Your task to perform on an android device: Open the Play Movies app and select the watchlist tab. Image 0: 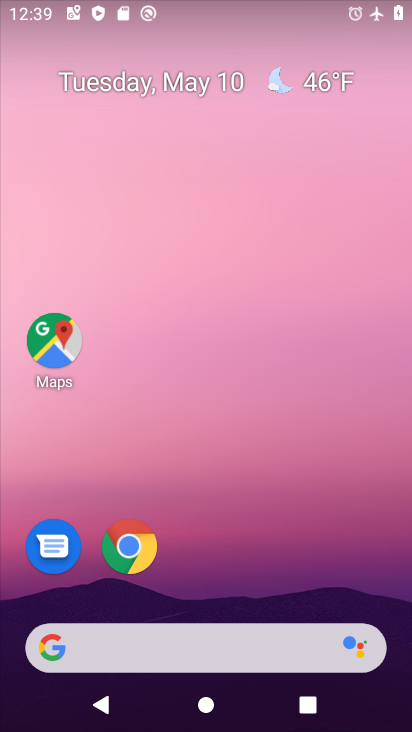
Step 0: drag from (343, 597) to (321, 5)
Your task to perform on an android device: Open the Play Movies app and select the watchlist tab. Image 1: 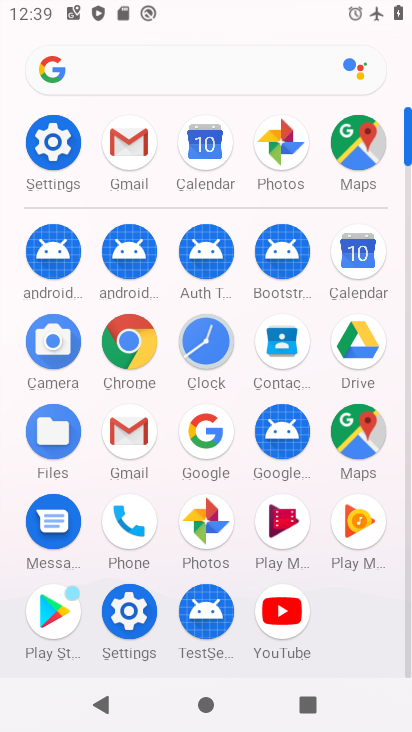
Step 1: click (277, 527)
Your task to perform on an android device: Open the Play Movies app and select the watchlist tab. Image 2: 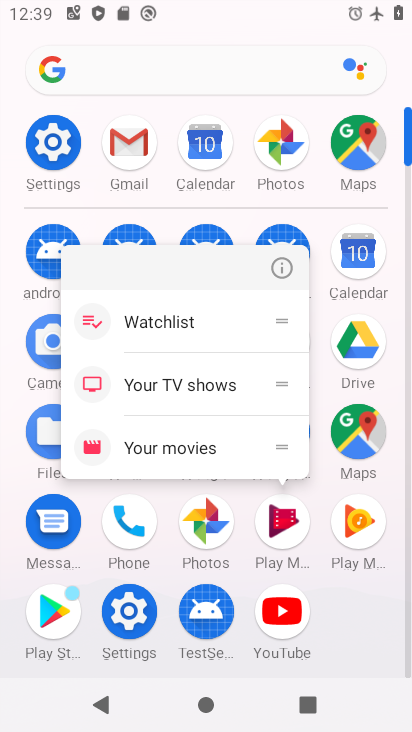
Step 2: click (277, 527)
Your task to perform on an android device: Open the Play Movies app and select the watchlist tab. Image 3: 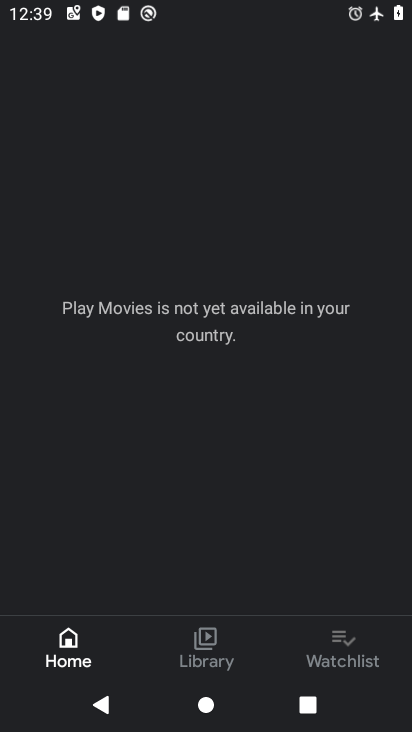
Step 3: click (324, 653)
Your task to perform on an android device: Open the Play Movies app and select the watchlist tab. Image 4: 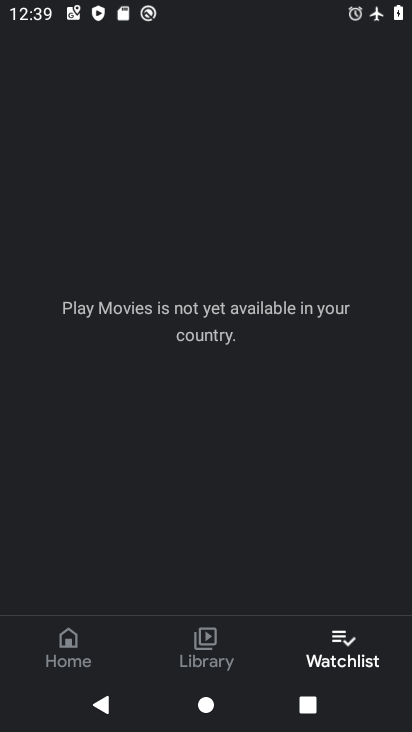
Step 4: task complete